Your task to perform on an android device: change text size in settings app Image 0: 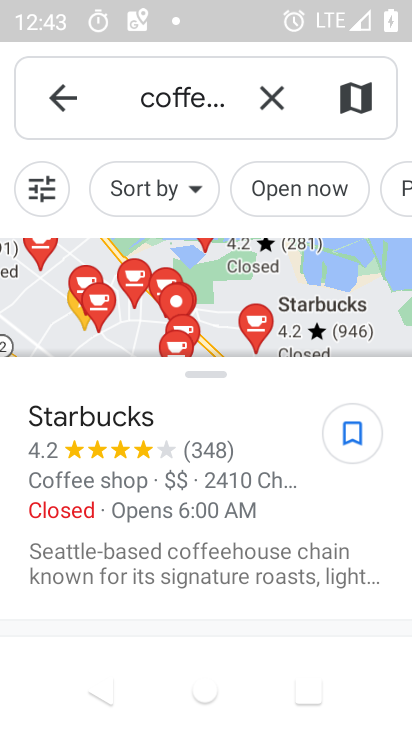
Step 0: press home button
Your task to perform on an android device: change text size in settings app Image 1: 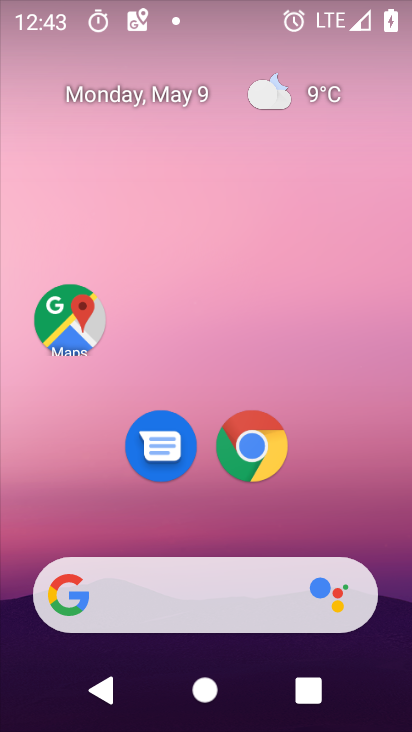
Step 1: drag from (312, 538) to (338, 2)
Your task to perform on an android device: change text size in settings app Image 2: 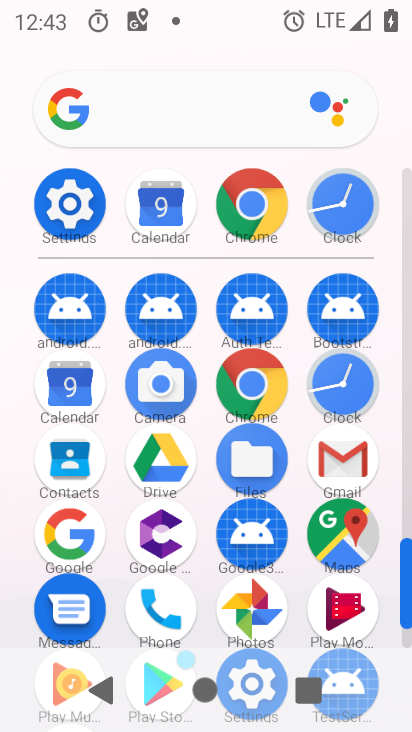
Step 2: click (64, 197)
Your task to perform on an android device: change text size in settings app Image 3: 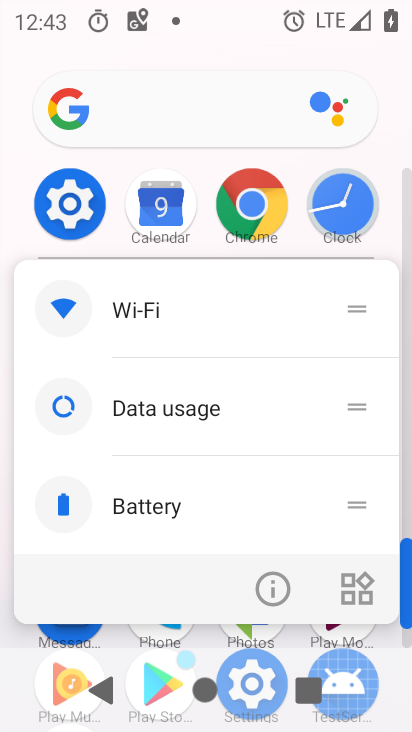
Step 3: click (68, 203)
Your task to perform on an android device: change text size in settings app Image 4: 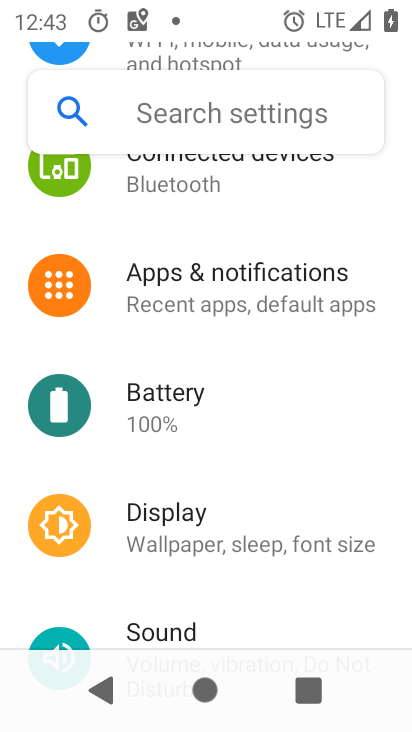
Step 4: click (188, 527)
Your task to perform on an android device: change text size in settings app Image 5: 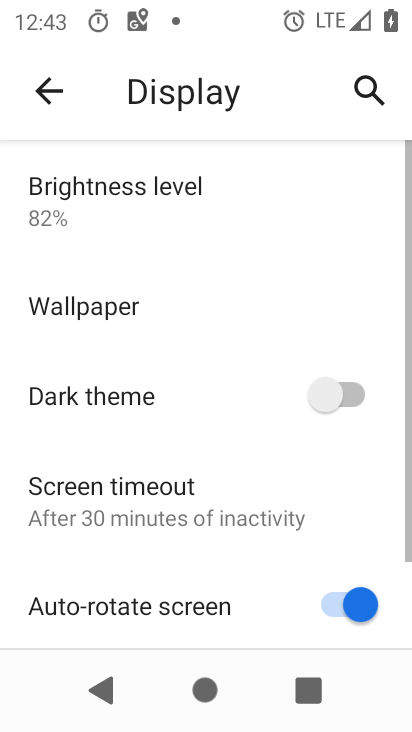
Step 5: drag from (188, 527) to (198, 215)
Your task to perform on an android device: change text size in settings app Image 6: 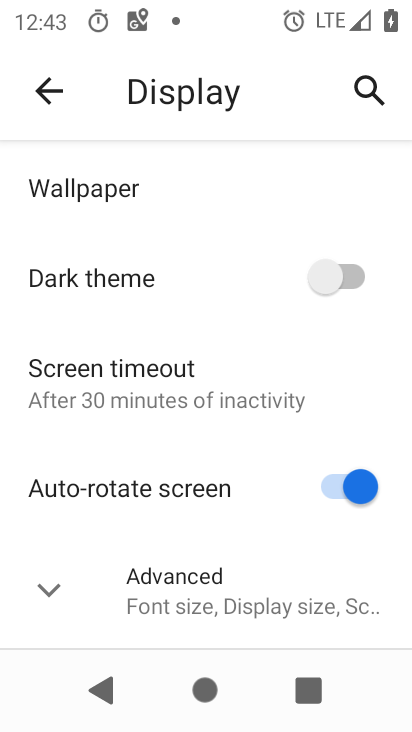
Step 6: click (41, 604)
Your task to perform on an android device: change text size in settings app Image 7: 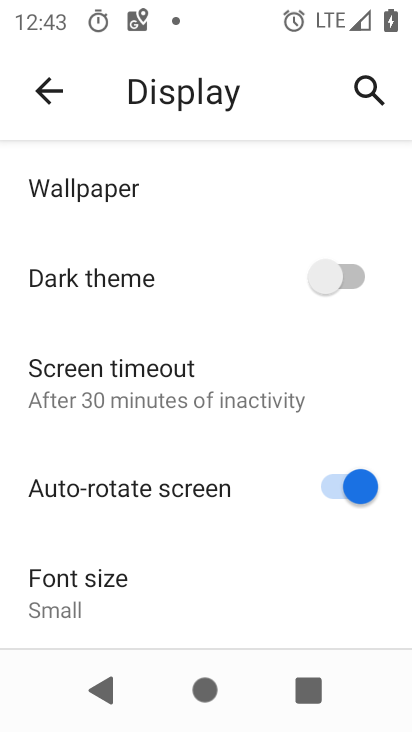
Step 7: click (90, 588)
Your task to perform on an android device: change text size in settings app Image 8: 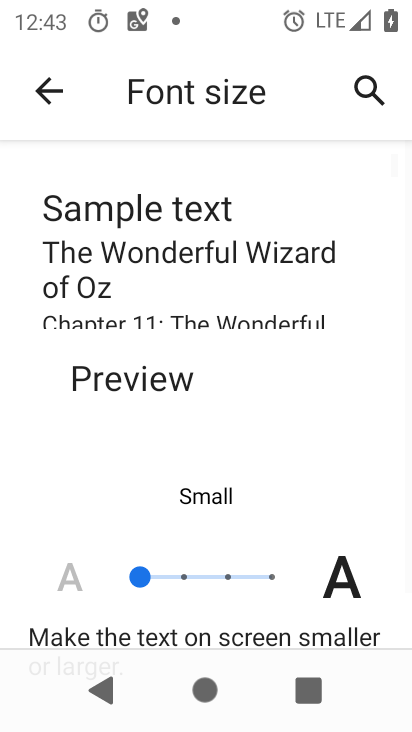
Step 8: click (169, 570)
Your task to perform on an android device: change text size in settings app Image 9: 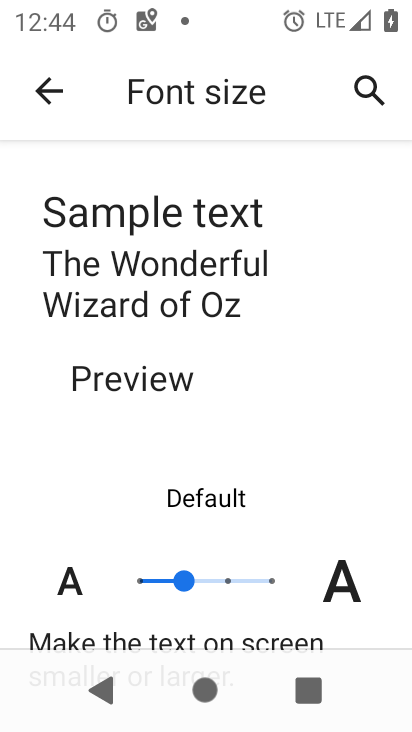
Step 9: task complete